Your task to perform on an android device: View the shopping cart on costco.com. Search for dell xps on costco.com, select the first entry, add it to the cart, then select checkout. Image 0: 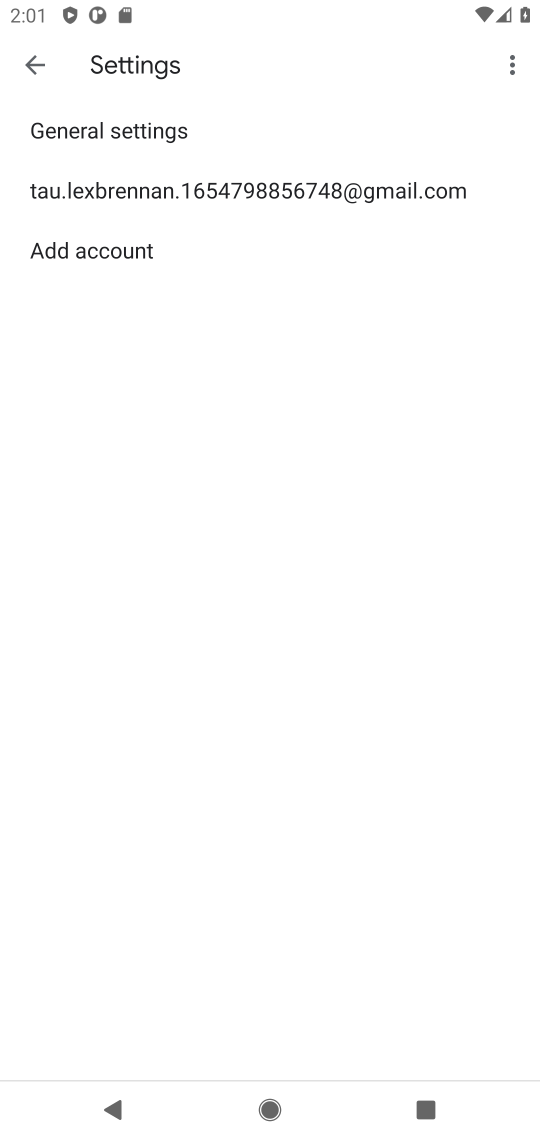
Step 0: press home button
Your task to perform on an android device: View the shopping cart on costco.com. Search for dell xps on costco.com, select the first entry, add it to the cart, then select checkout. Image 1: 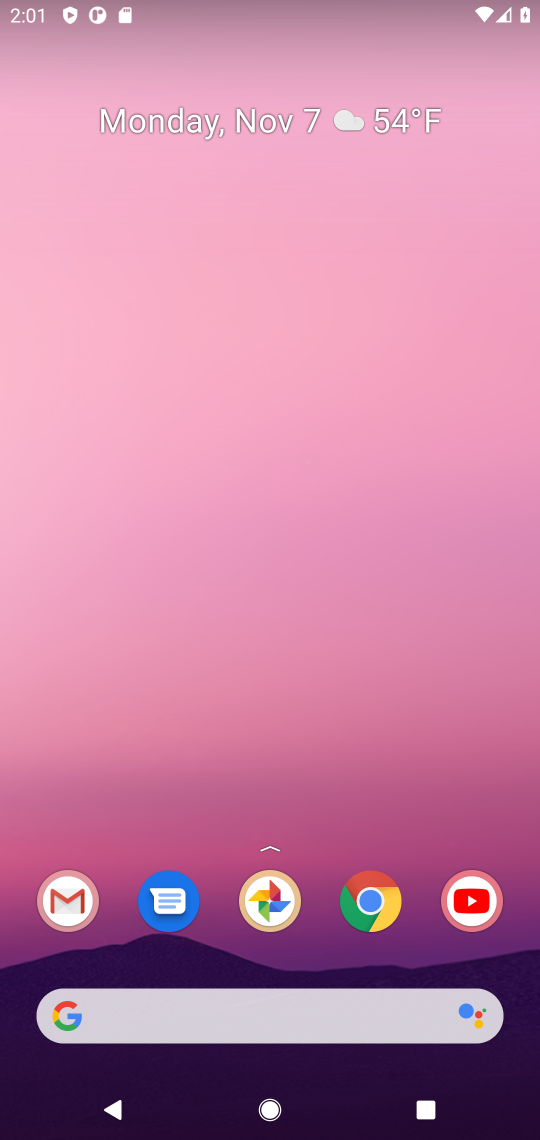
Step 1: click (374, 910)
Your task to perform on an android device: View the shopping cart on costco.com. Search for dell xps on costco.com, select the first entry, add it to the cart, then select checkout. Image 2: 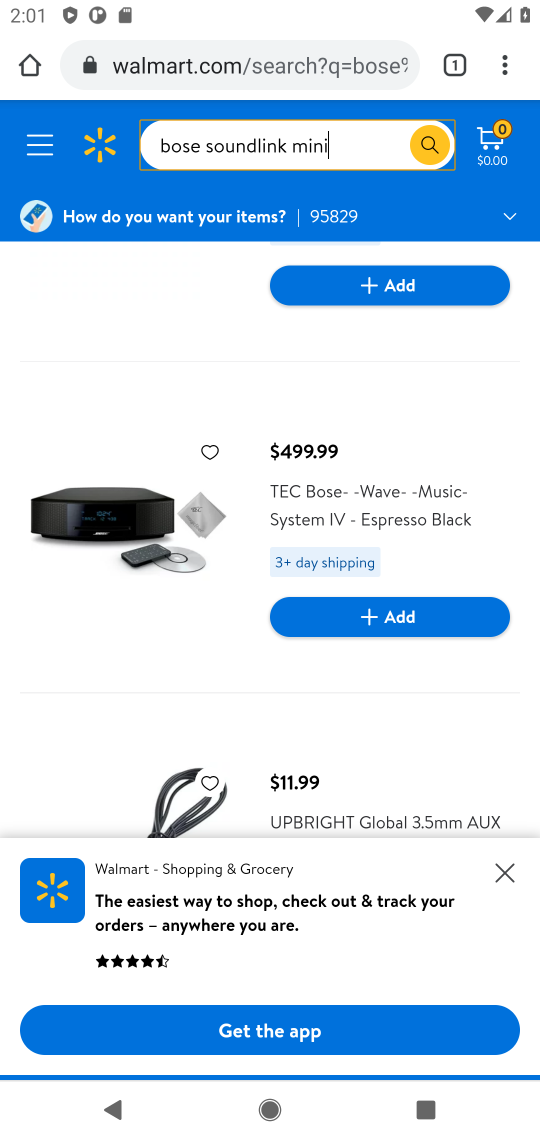
Step 2: click (261, 60)
Your task to perform on an android device: View the shopping cart on costco.com. Search for dell xps on costco.com, select the first entry, add it to the cart, then select checkout. Image 3: 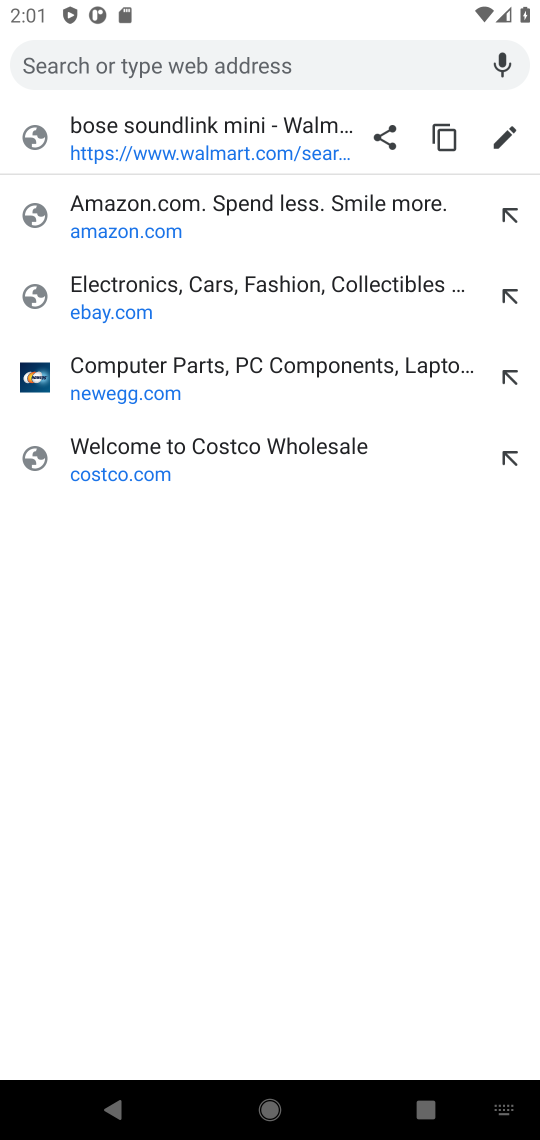
Step 3: click (110, 468)
Your task to perform on an android device: View the shopping cart on costco.com. Search for dell xps on costco.com, select the first entry, add it to the cart, then select checkout. Image 4: 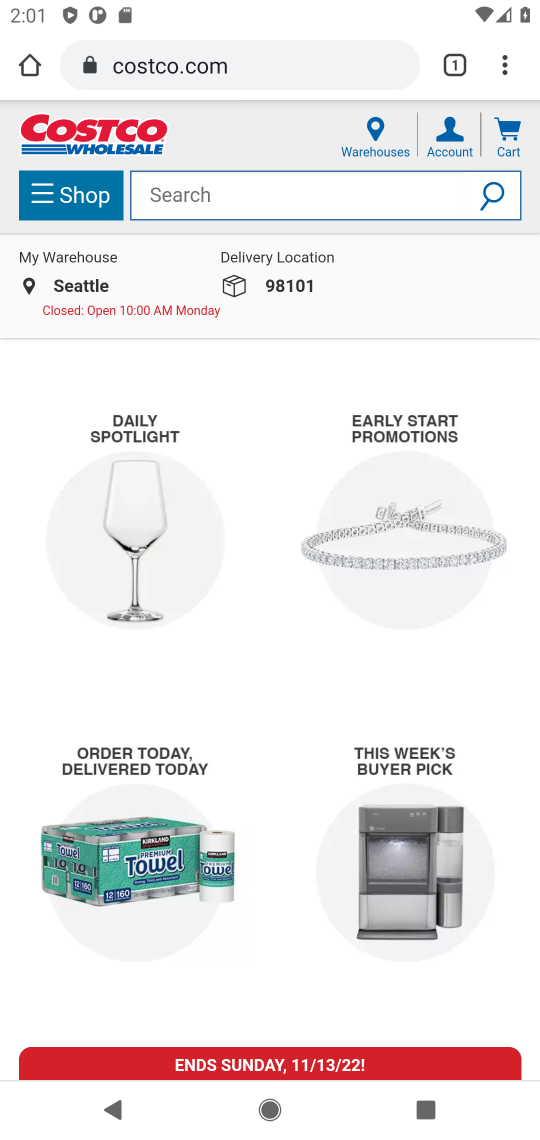
Step 4: click (508, 138)
Your task to perform on an android device: View the shopping cart on costco.com. Search for dell xps on costco.com, select the first entry, add it to the cart, then select checkout. Image 5: 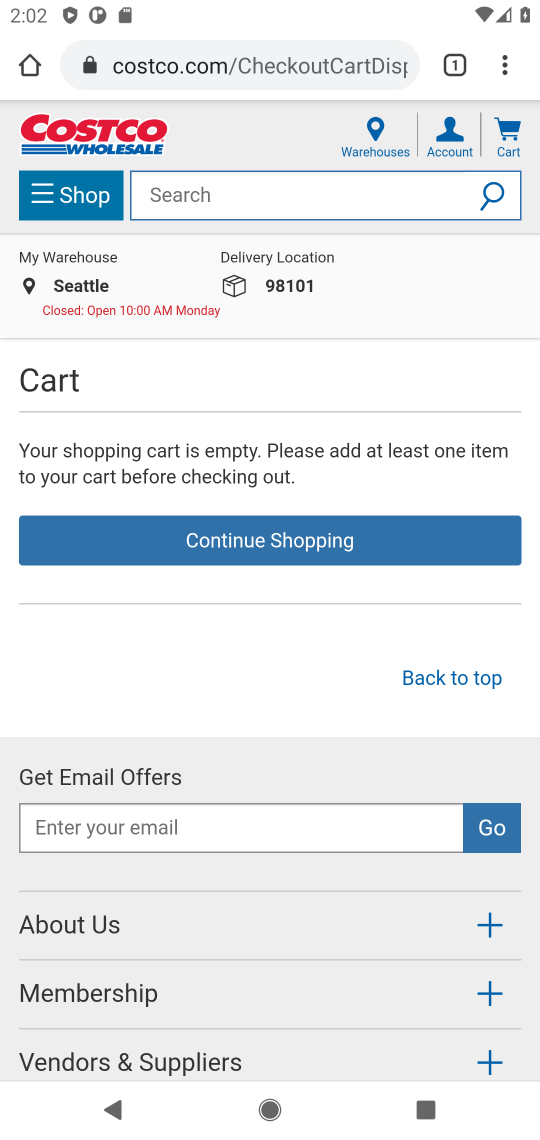
Step 5: click (200, 189)
Your task to perform on an android device: View the shopping cart on costco.com. Search for dell xps on costco.com, select the first entry, add it to the cart, then select checkout. Image 6: 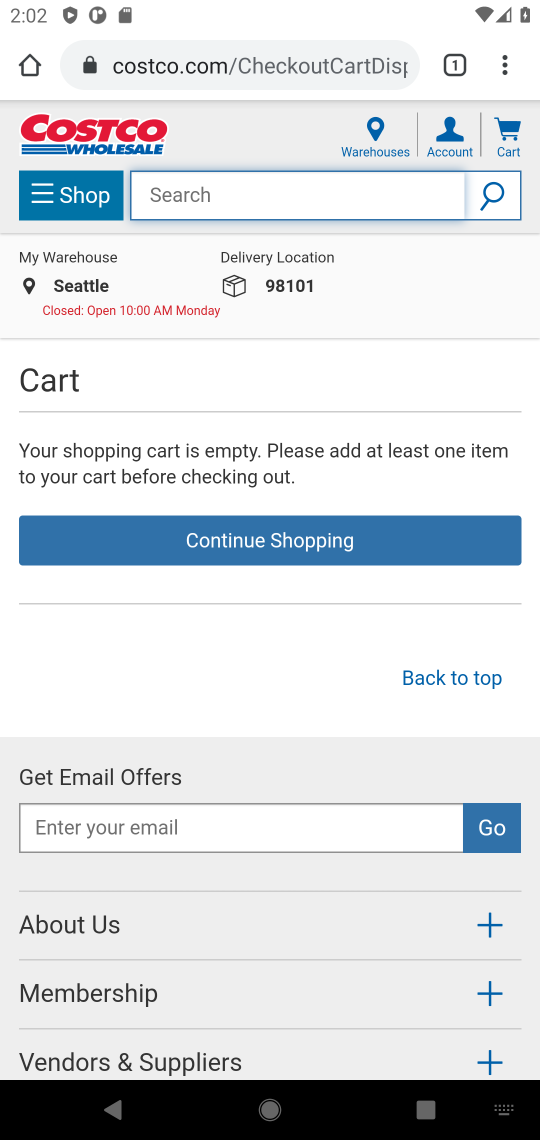
Step 6: type "dell xps "
Your task to perform on an android device: View the shopping cart on costco.com. Search for dell xps on costco.com, select the first entry, add it to the cart, then select checkout. Image 7: 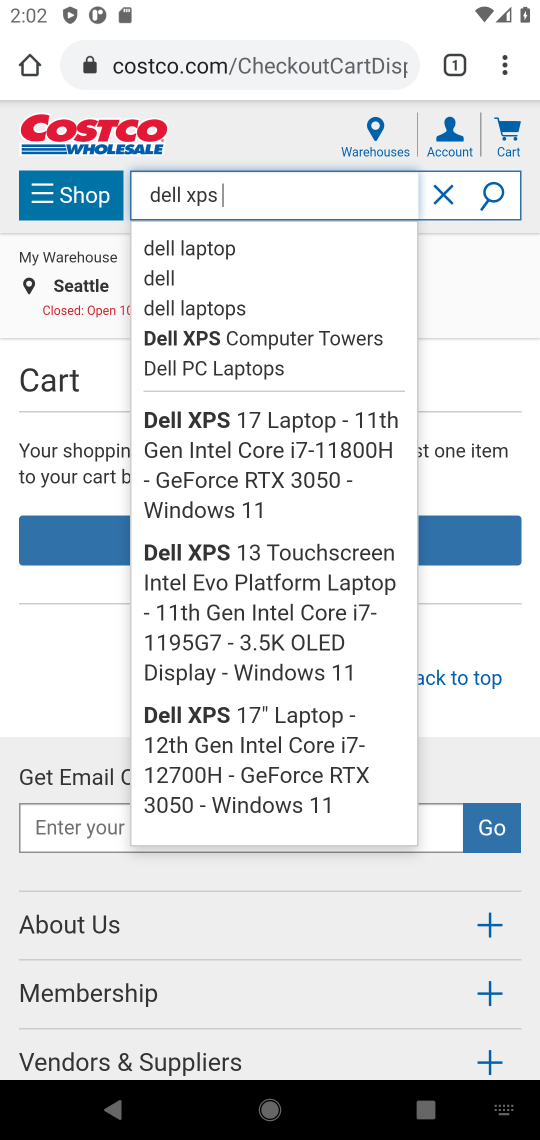
Step 7: click (493, 192)
Your task to perform on an android device: View the shopping cart on costco.com. Search for dell xps on costco.com, select the first entry, add it to the cart, then select checkout. Image 8: 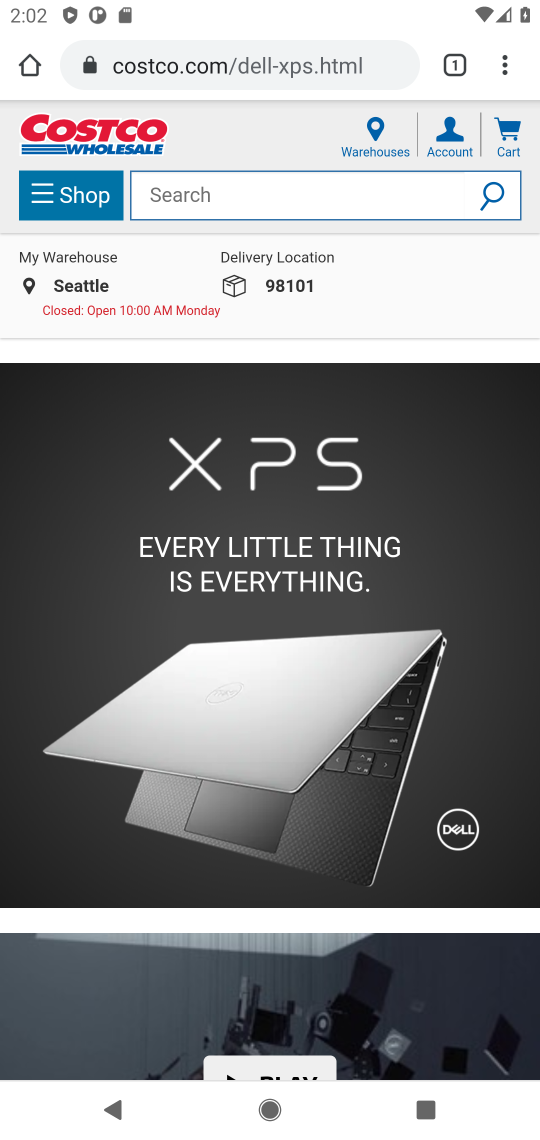
Step 8: task complete